Your task to perform on an android device: see tabs open on other devices in the chrome app Image 0: 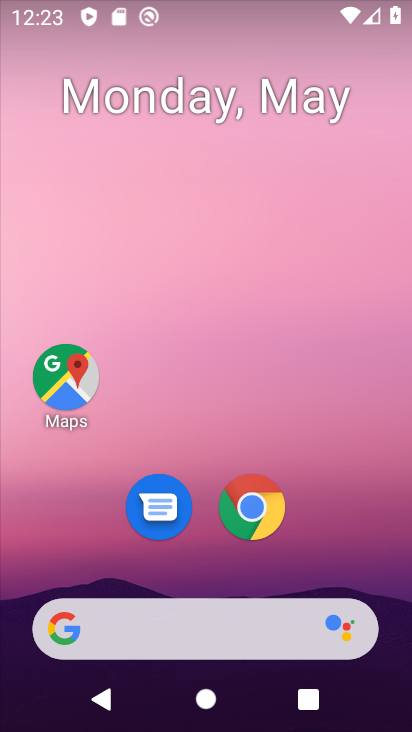
Step 0: click (254, 507)
Your task to perform on an android device: see tabs open on other devices in the chrome app Image 1: 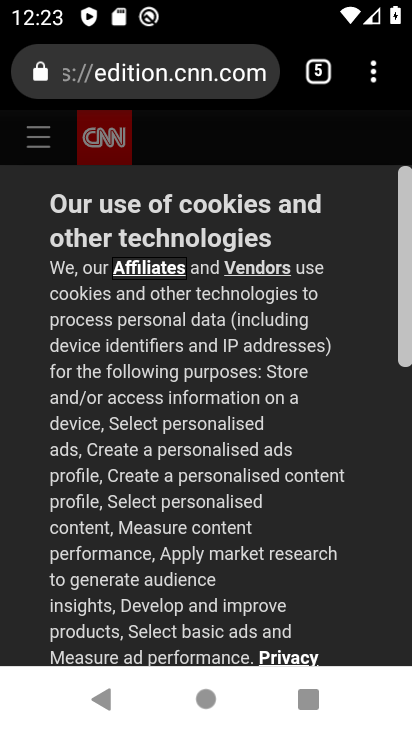
Step 1: click (376, 80)
Your task to perform on an android device: see tabs open on other devices in the chrome app Image 2: 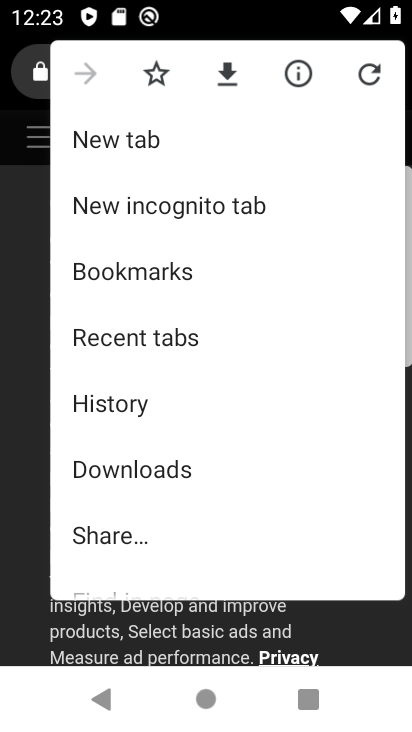
Step 2: drag from (140, 497) to (139, 358)
Your task to perform on an android device: see tabs open on other devices in the chrome app Image 3: 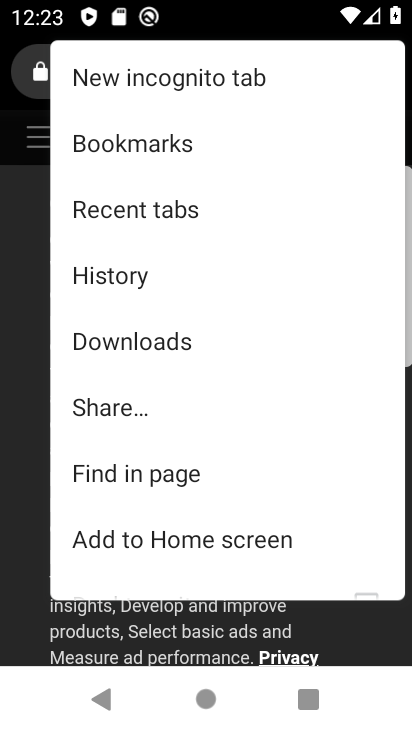
Step 3: click (157, 216)
Your task to perform on an android device: see tabs open on other devices in the chrome app Image 4: 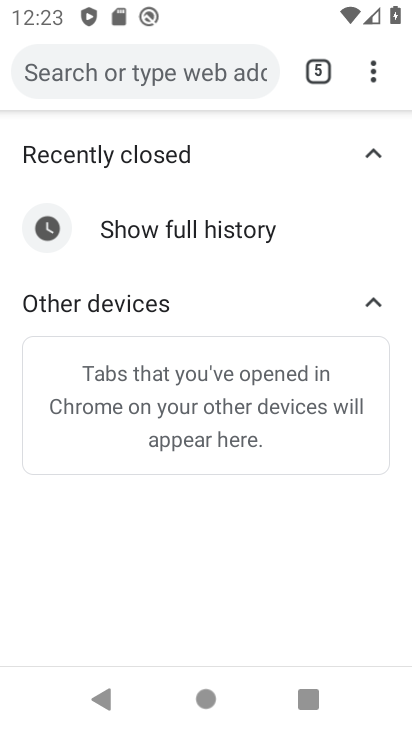
Step 4: task complete